Your task to perform on an android device: change keyboard looks Image 0: 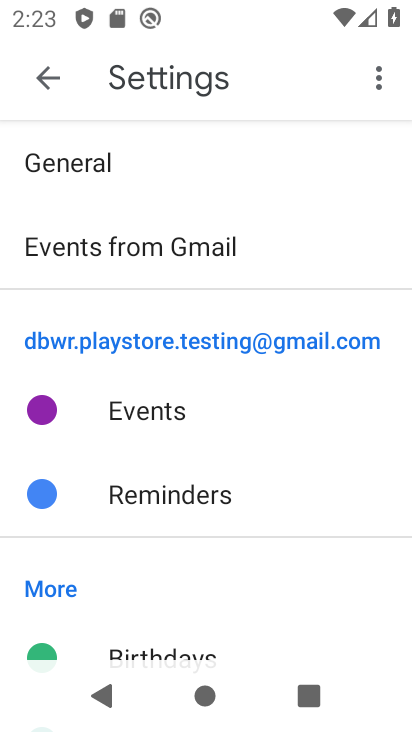
Step 0: press home button
Your task to perform on an android device: change keyboard looks Image 1: 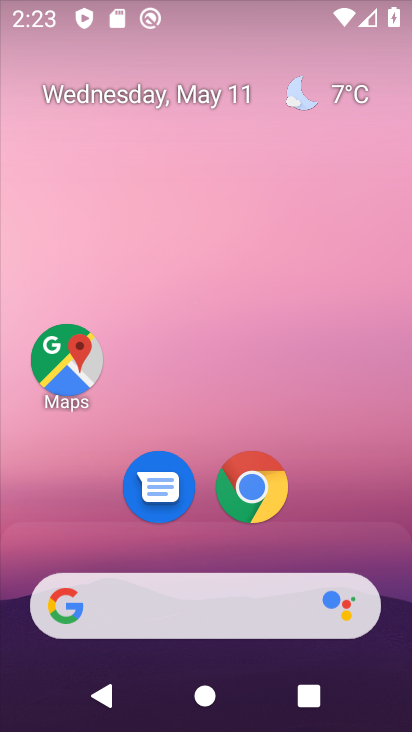
Step 1: drag from (217, 619) to (266, 74)
Your task to perform on an android device: change keyboard looks Image 2: 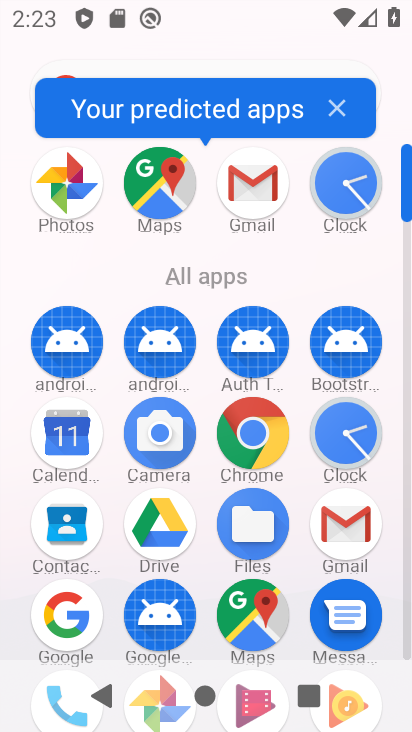
Step 2: drag from (284, 583) to (303, 302)
Your task to perform on an android device: change keyboard looks Image 3: 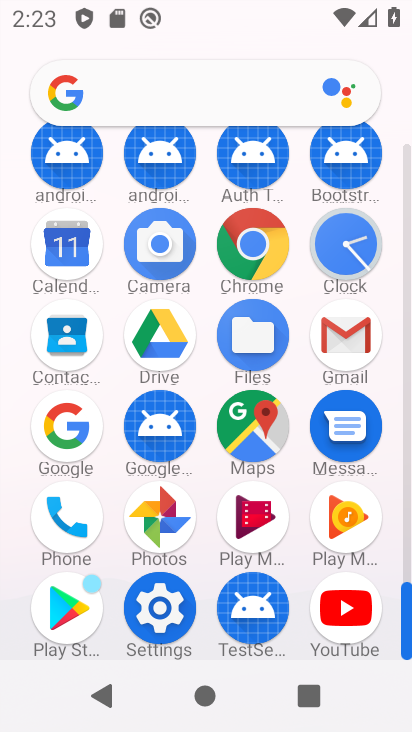
Step 3: click (160, 613)
Your task to perform on an android device: change keyboard looks Image 4: 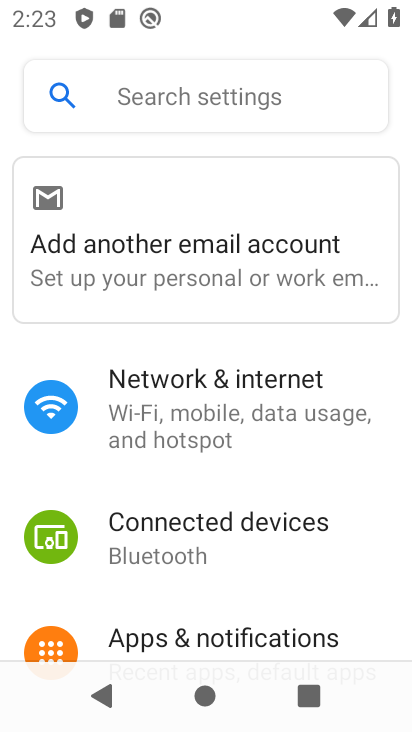
Step 4: drag from (242, 570) to (259, 95)
Your task to perform on an android device: change keyboard looks Image 5: 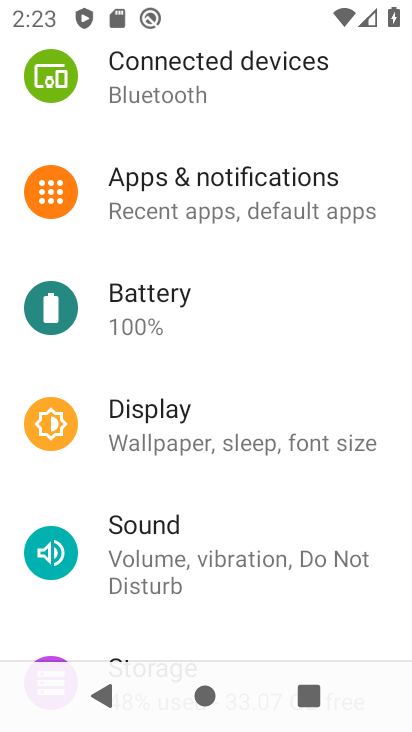
Step 5: drag from (272, 618) to (301, 154)
Your task to perform on an android device: change keyboard looks Image 6: 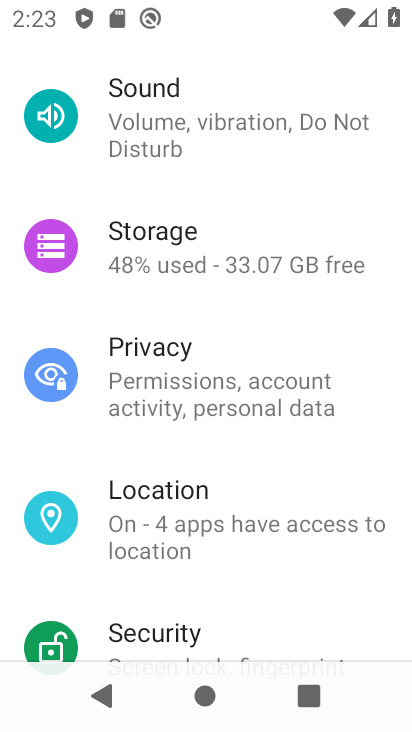
Step 6: drag from (305, 609) to (369, 73)
Your task to perform on an android device: change keyboard looks Image 7: 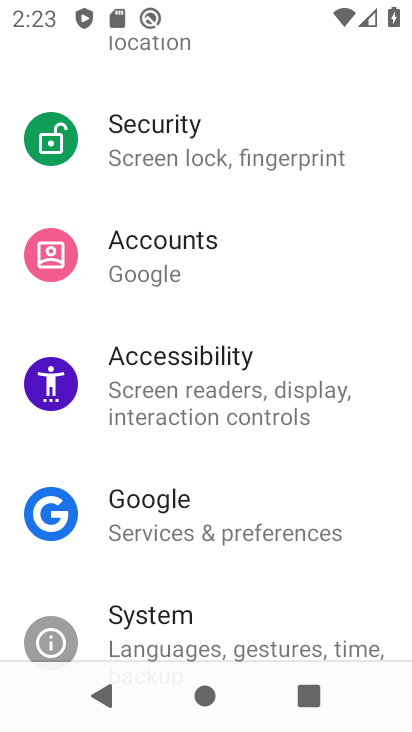
Step 7: drag from (231, 631) to (360, 162)
Your task to perform on an android device: change keyboard looks Image 8: 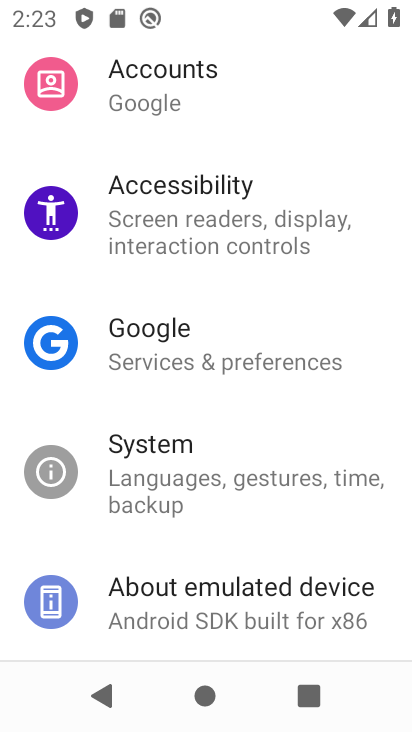
Step 8: click (298, 613)
Your task to perform on an android device: change keyboard looks Image 9: 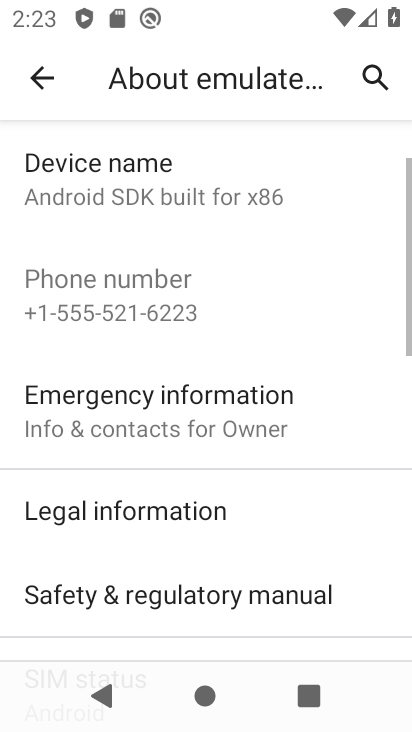
Step 9: press back button
Your task to perform on an android device: change keyboard looks Image 10: 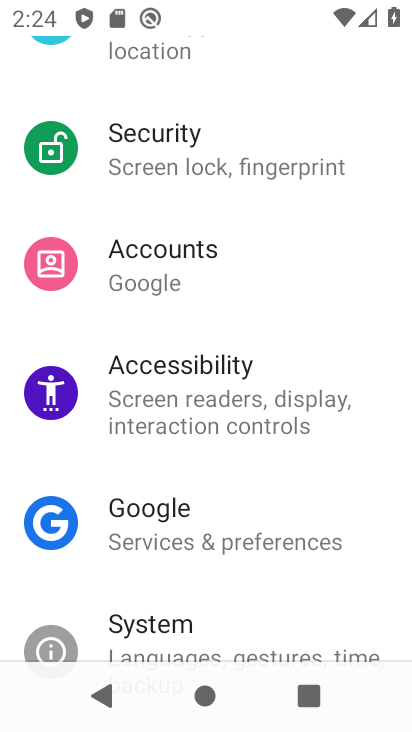
Step 10: drag from (210, 657) to (248, 227)
Your task to perform on an android device: change keyboard looks Image 11: 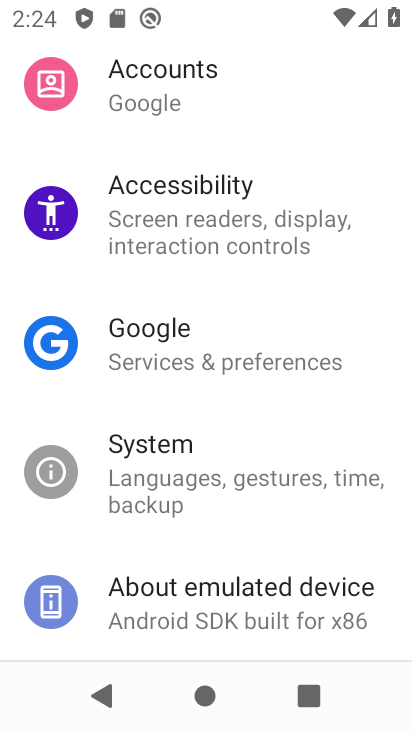
Step 11: click (163, 471)
Your task to perform on an android device: change keyboard looks Image 12: 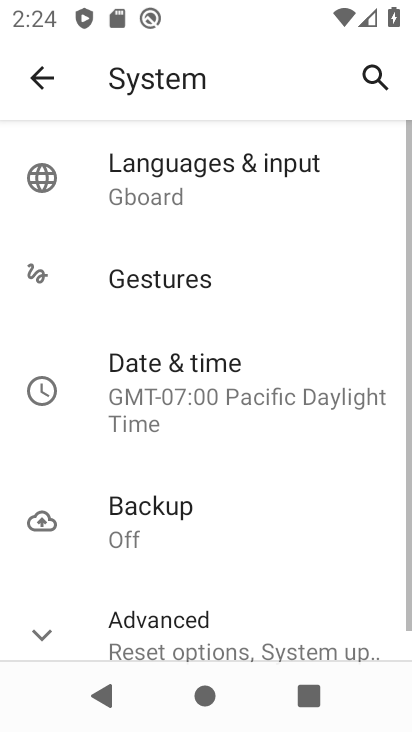
Step 12: click (231, 199)
Your task to perform on an android device: change keyboard looks Image 13: 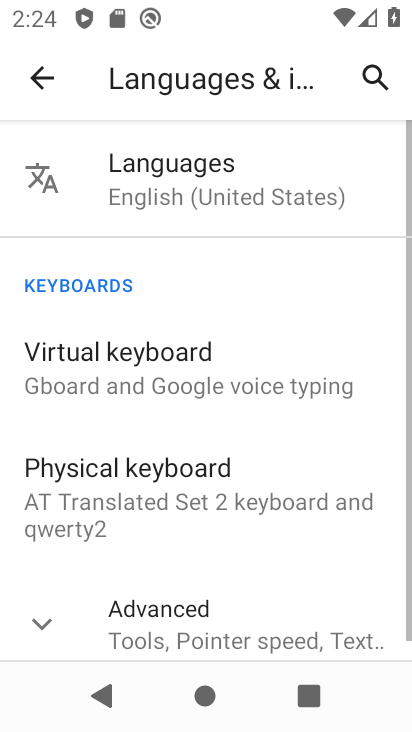
Step 13: click (205, 375)
Your task to perform on an android device: change keyboard looks Image 14: 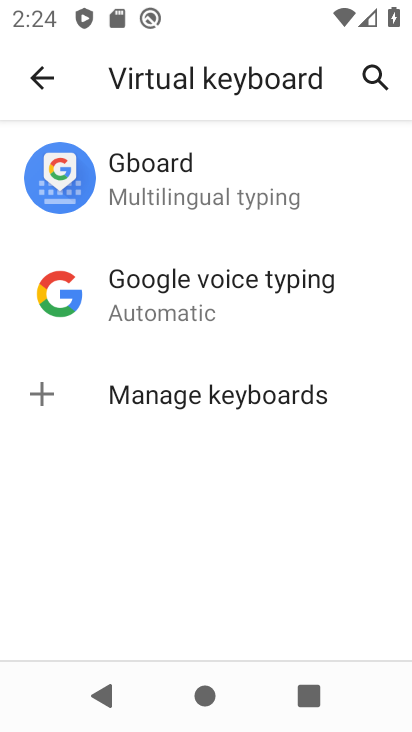
Step 14: click (241, 201)
Your task to perform on an android device: change keyboard looks Image 15: 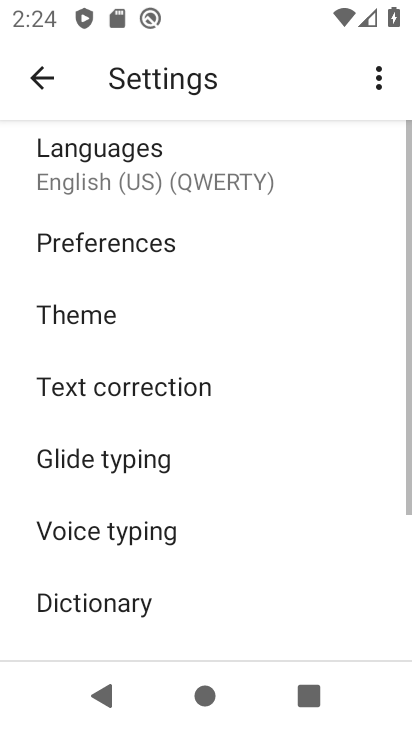
Step 15: click (110, 312)
Your task to perform on an android device: change keyboard looks Image 16: 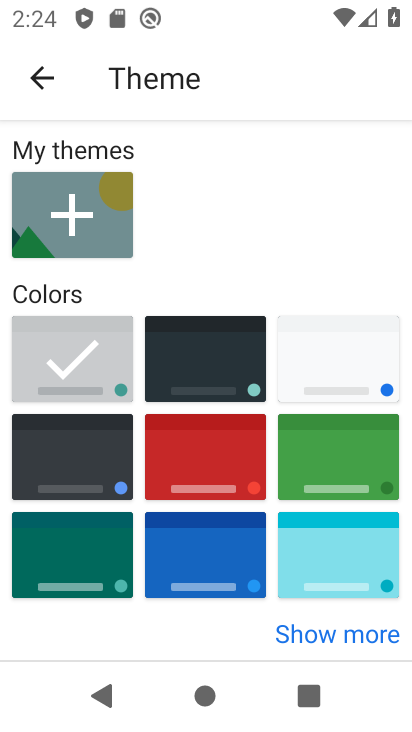
Step 16: click (176, 365)
Your task to perform on an android device: change keyboard looks Image 17: 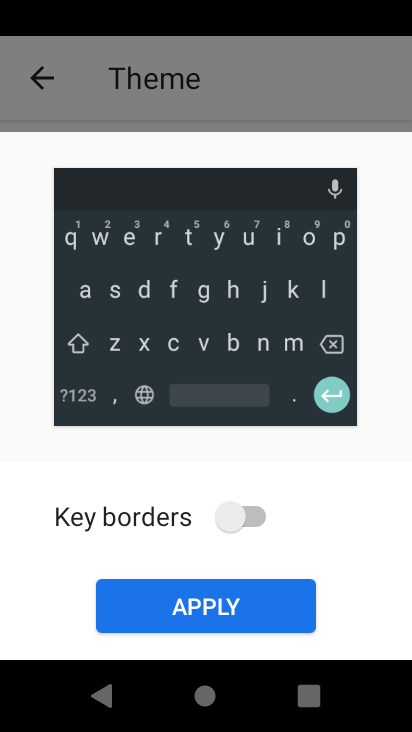
Step 17: click (243, 601)
Your task to perform on an android device: change keyboard looks Image 18: 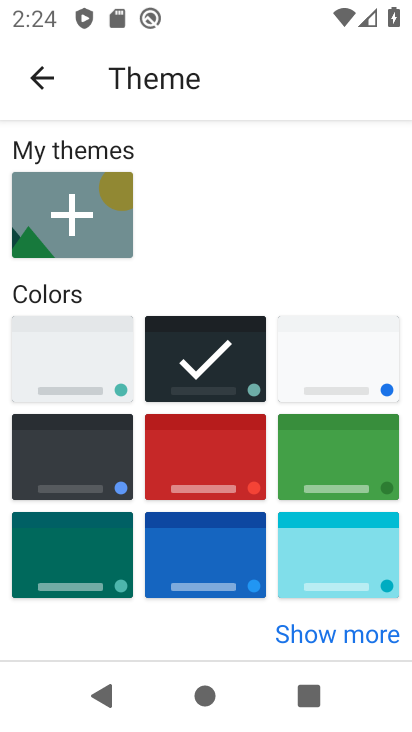
Step 18: task complete